Your task to perform on an android device: What's the weather today? Image 0: 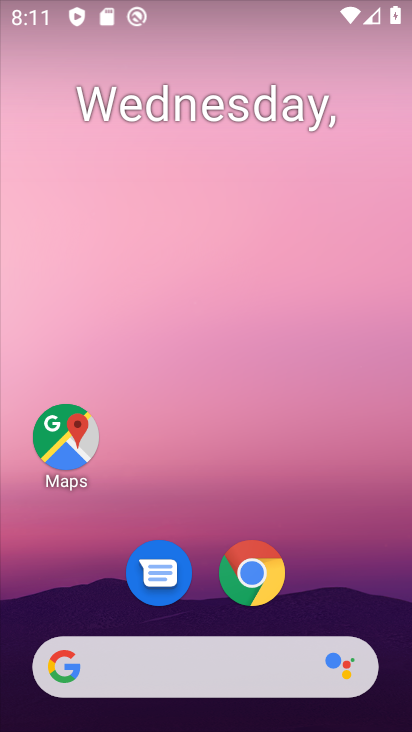
Step 0: drag from (209, 651) to (230, 142)
Your task to perform on an android device: What's the weather today? Image 1: 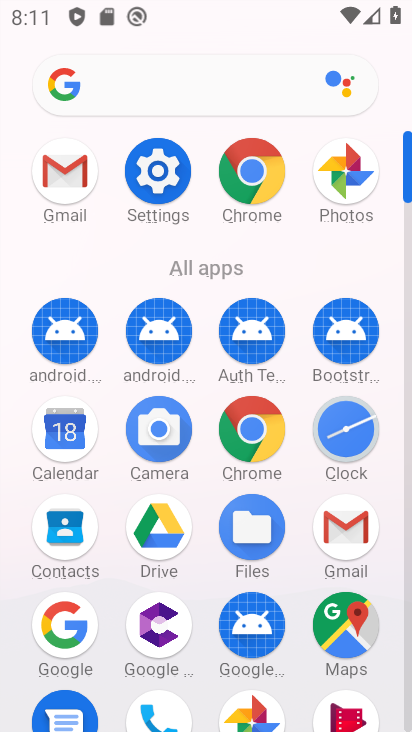
Step 1: click (58, 645)
Your task to perform on an android device: What's the weather today? Image 2: 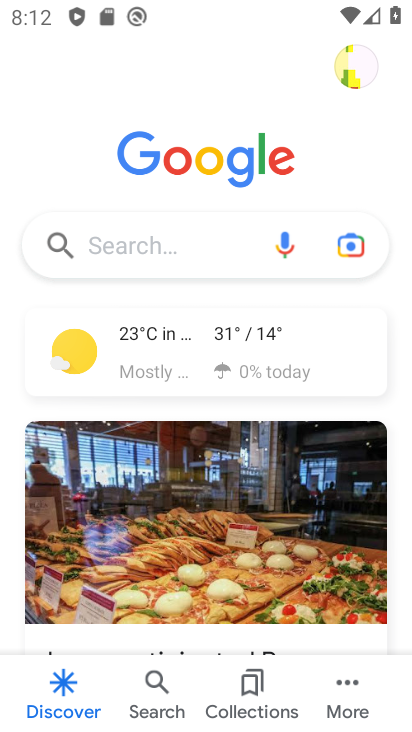
Step 2: click (125, 273)
Your task to perform on an android device: What's the weather today? Image 3: 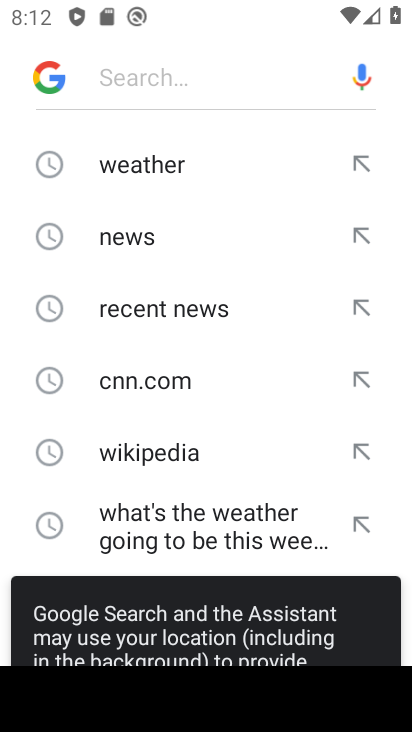
Step 3: click (230, 178)
Your task to perform on an android device: What's the weather today? Image 4: 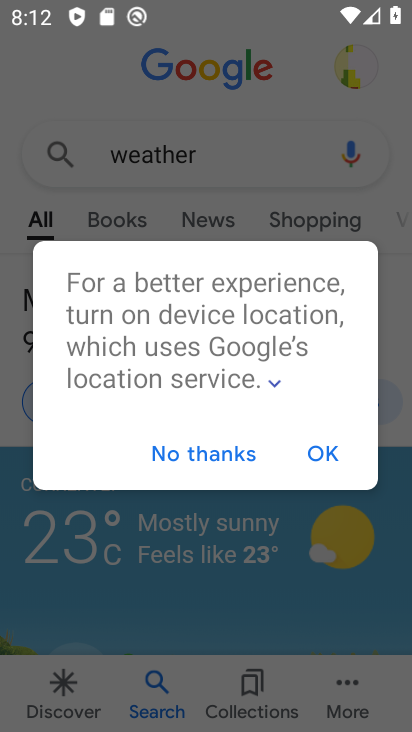
Step 4: click (333, 455)
Your task to perform on an android device: What's the weather today? Image 5: 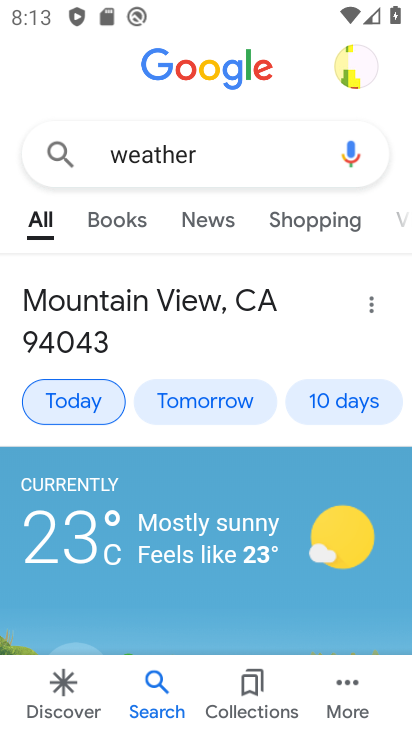
Step 5: task complete